Your task to perform on an android device: Go to internet settings Image 0: 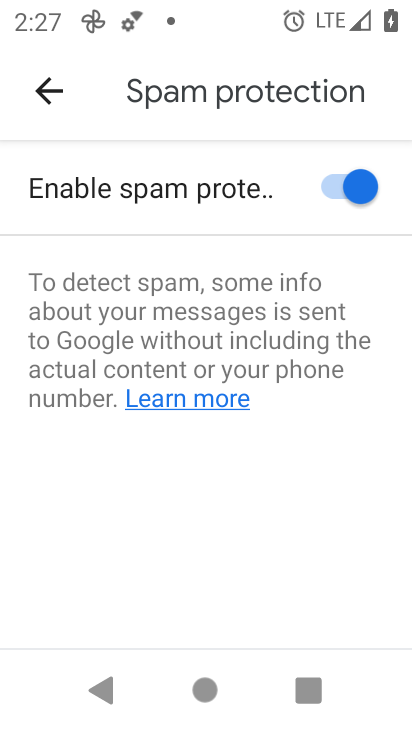
Step 0: press home button
Your task to perform on an android device: Go to internet settings Image 1: 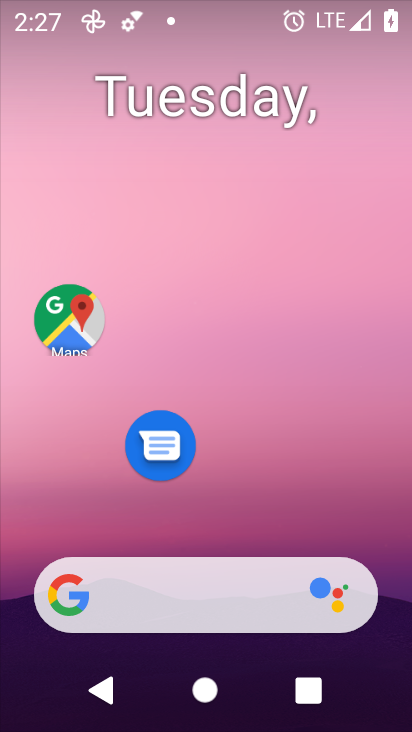
Step 1: drag from (296, 510) to (169, 89)
Your task to perform on an android device: Go to internet settings Image 2: 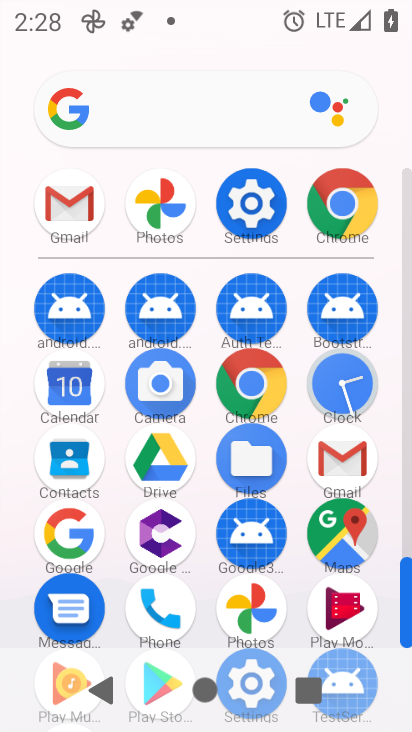
Step 2: click (252, 200)
Your task to perform on an android device: Go to internet settings Image 3: 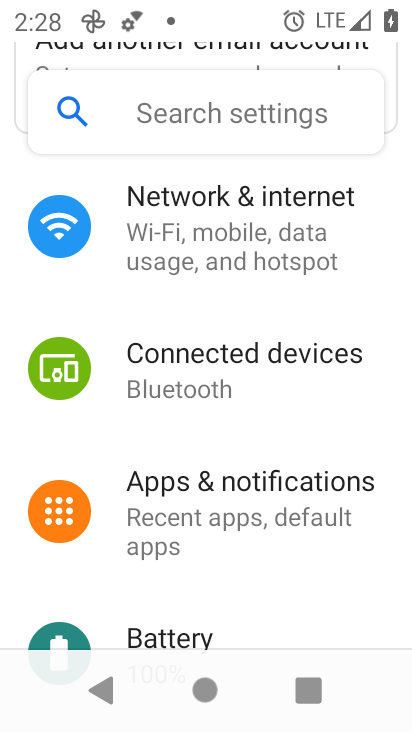
Step 3: click (246, 218)
Your task to perform on an android device: Go to internet settings Image 4: 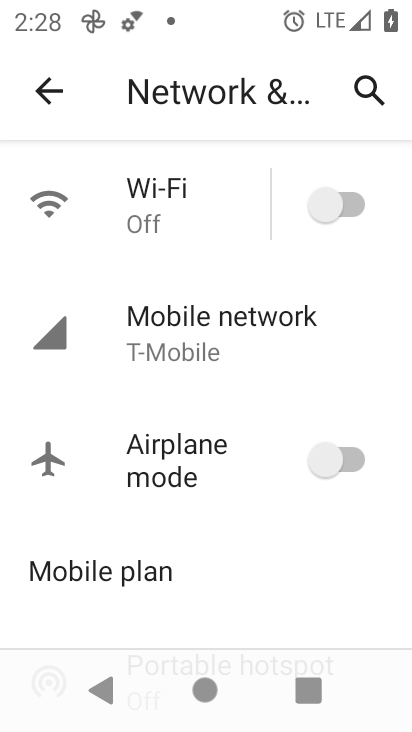
Step 4: click (236, 310)
Your task to perform on an android device: Go to internet settings Image 5: 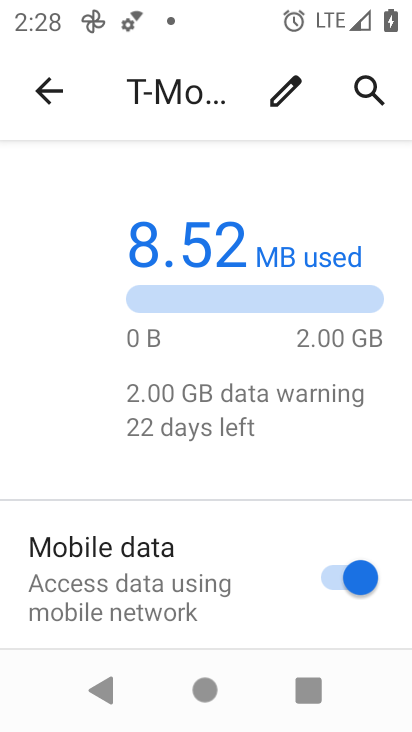
Step 5: task complete